Your task to perform on an android device: Go to calendar. Show me events next week Image 0: 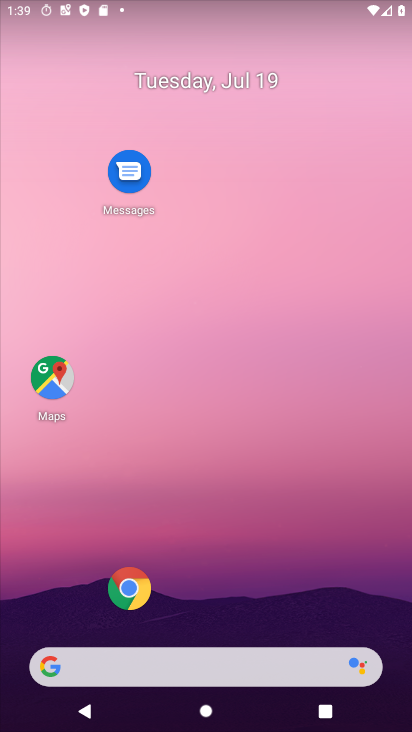
Step 0: drag from (3, 706) to (241, 243)
Your task to perform on an android device: Go to calendar. Show me events next week Image 1: 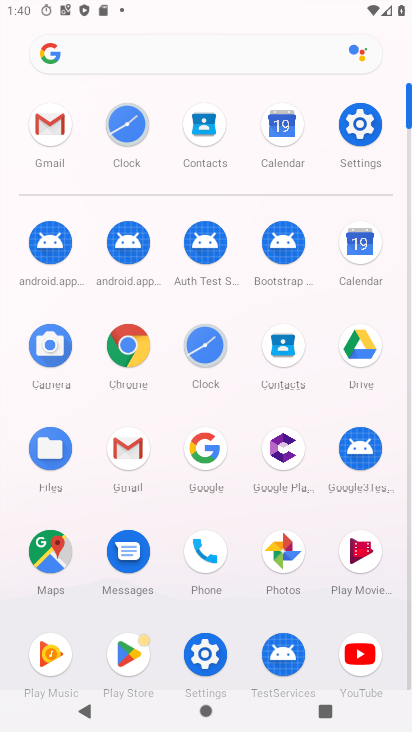
Step 1: click (367, 243)
Your task to perform on an android device: Go to calendar. Show me events next week Image 2: 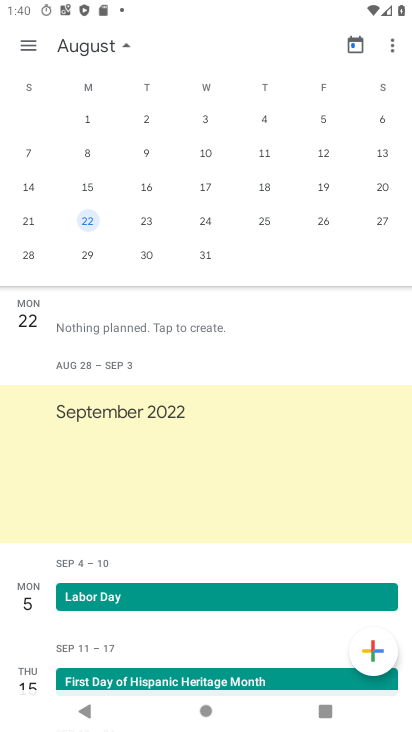
Step 2: task complete